Your task to perform on an android device: Open Youtube and go to "Your channel" Image 0: 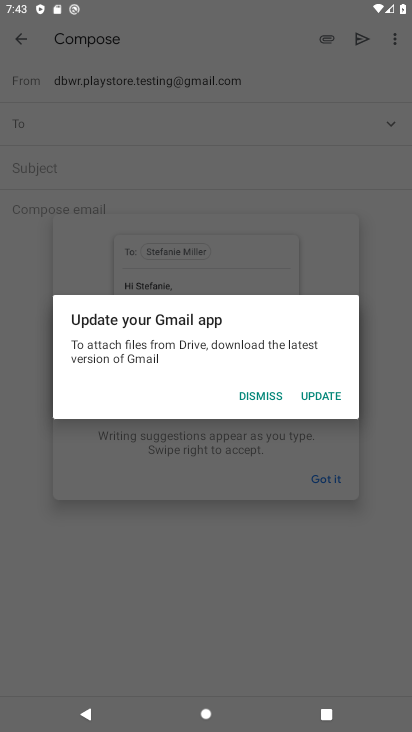
Step 0: press home button
Your task to perform on an android device: Open Youtube and go to "Your channel" Image 1: 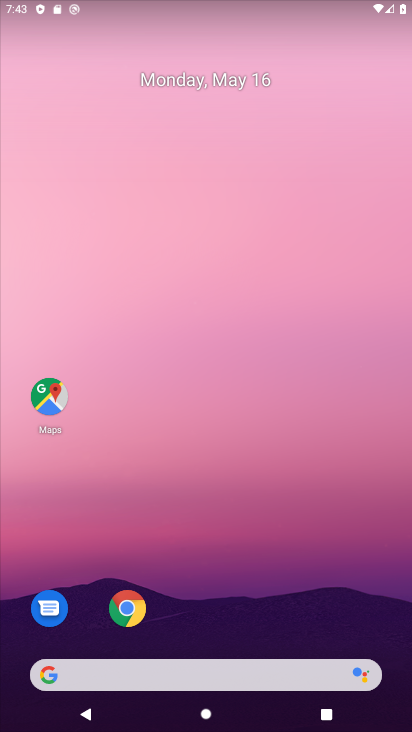
Step 1: drag from (21, 667) to (271, 226)
Your task to perform on an android device: Open Youtube and go to "Your channel" Image 2: 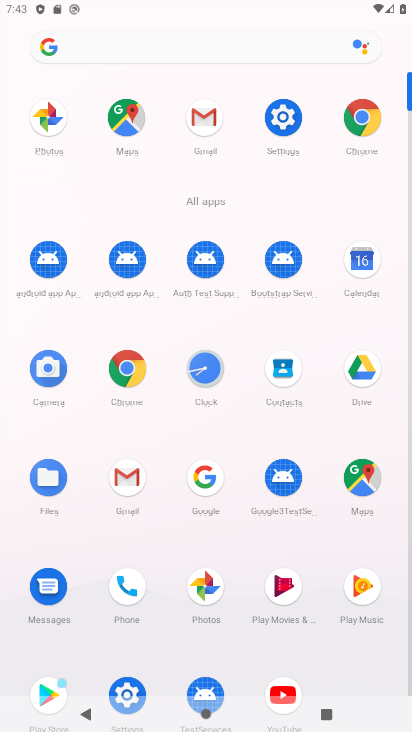
Step 2: click (291, 682)
Your task to perform on an android device: Open Youtube and go to "Your channel" Image 3: 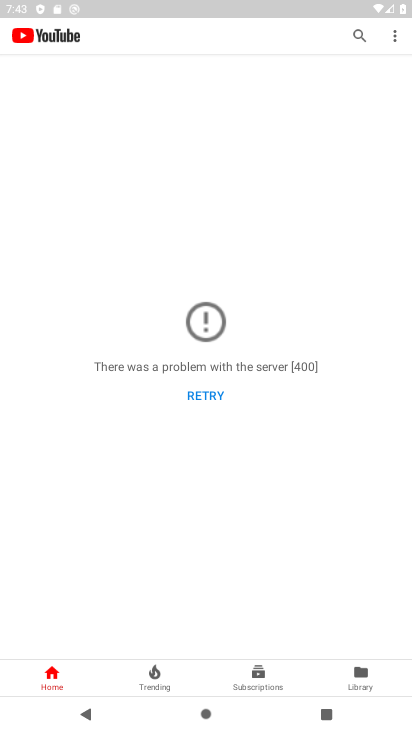
Step 3: click (396, 33)
Your task to perform on an android device: Open Youtube and go to "Your channel" Image 4: 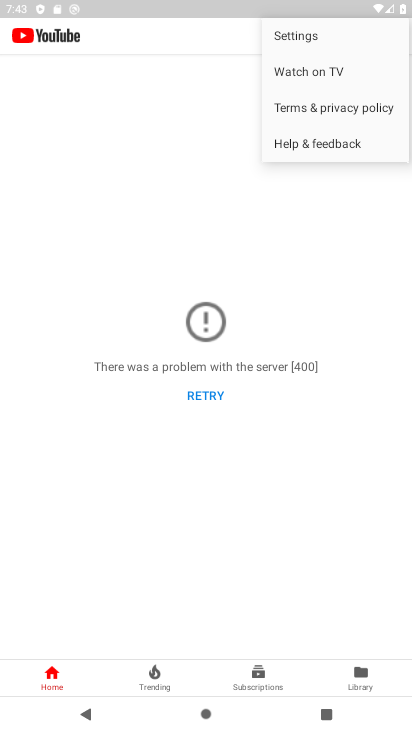
Step 4: click (325, 36)
Your task to perform on an android device: Open Youtube and go to "Your channel" Image 5: 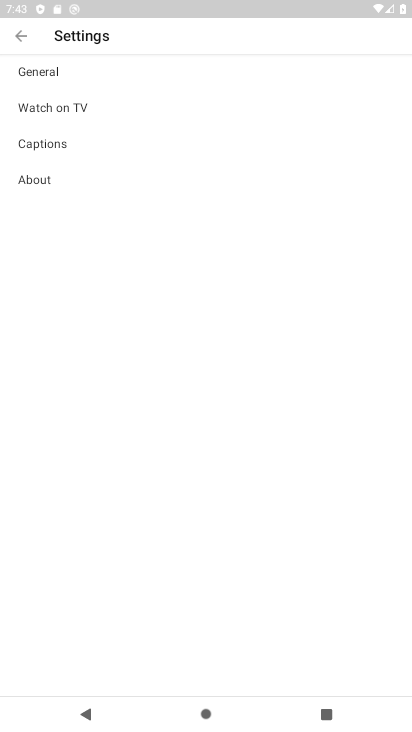
Step 5: click (39, 74)
Your task to perform on an android device: Open Youtube and go to "Your channel" Image 6: 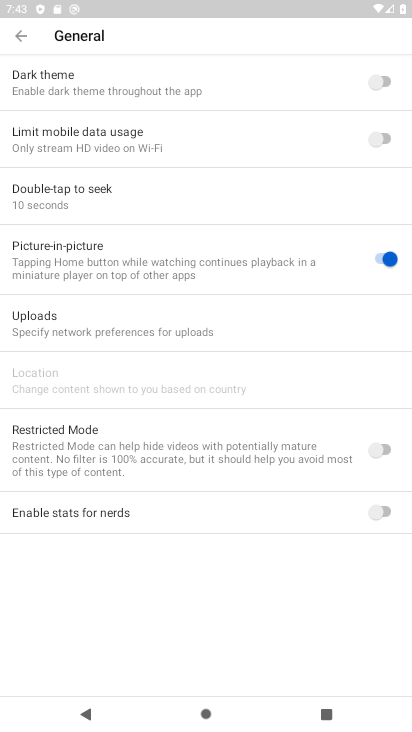
Step 6: task complete